Your task to perform on an android device: open app "Facebook Lite" (install if not already installed) Image 0: 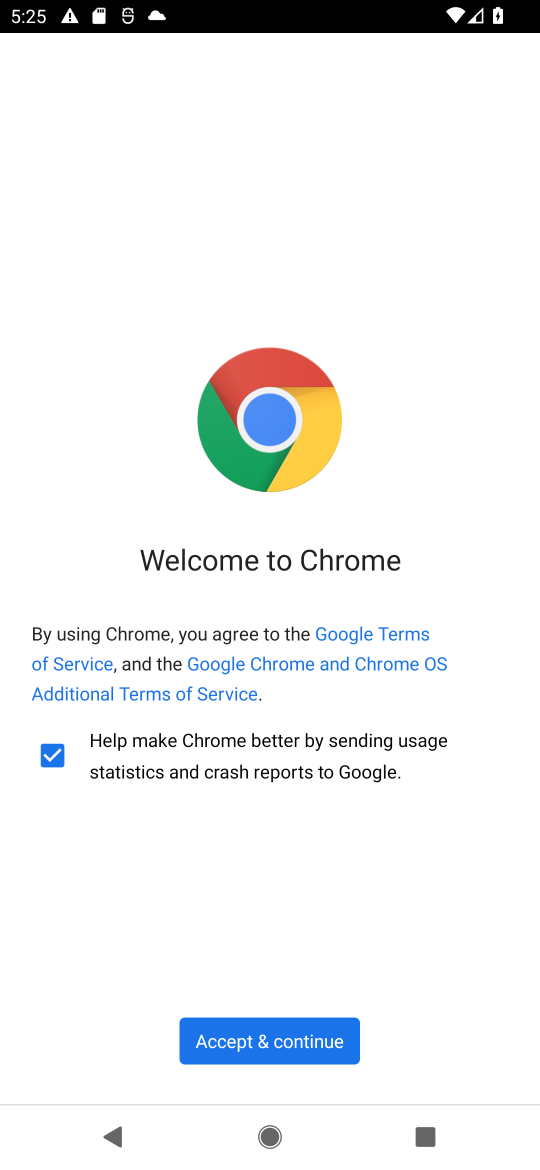
Step 0: press home button
Your task to perform on an android device: open app "Facebook Lite" (install if not already installed) Image 1: 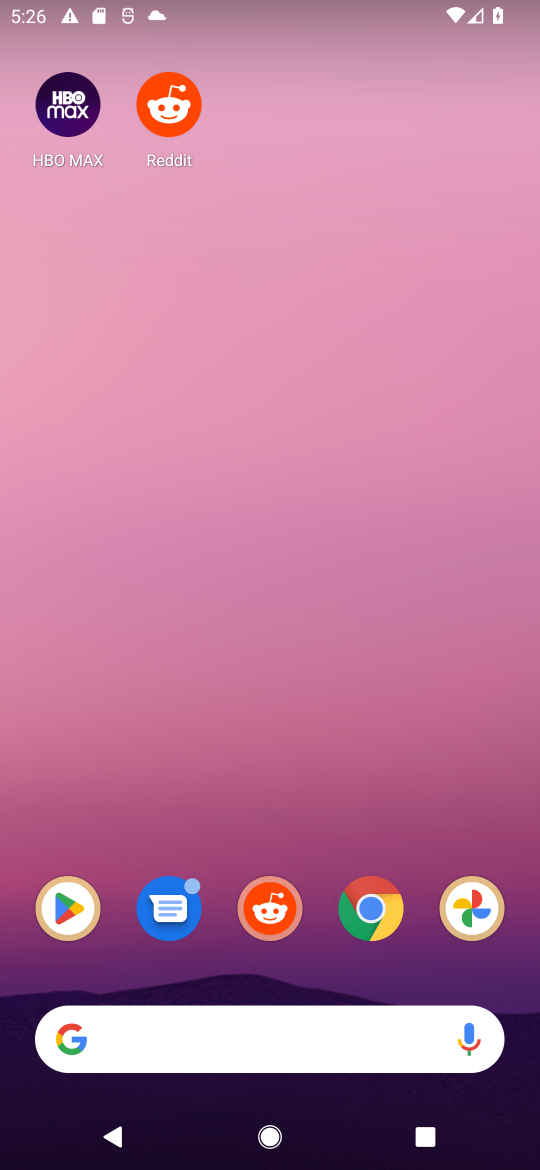
Step 1: click (58, 905)
Your task to perform on an android device: open app "Facebook Lite" (install if not already installed) Image 2: 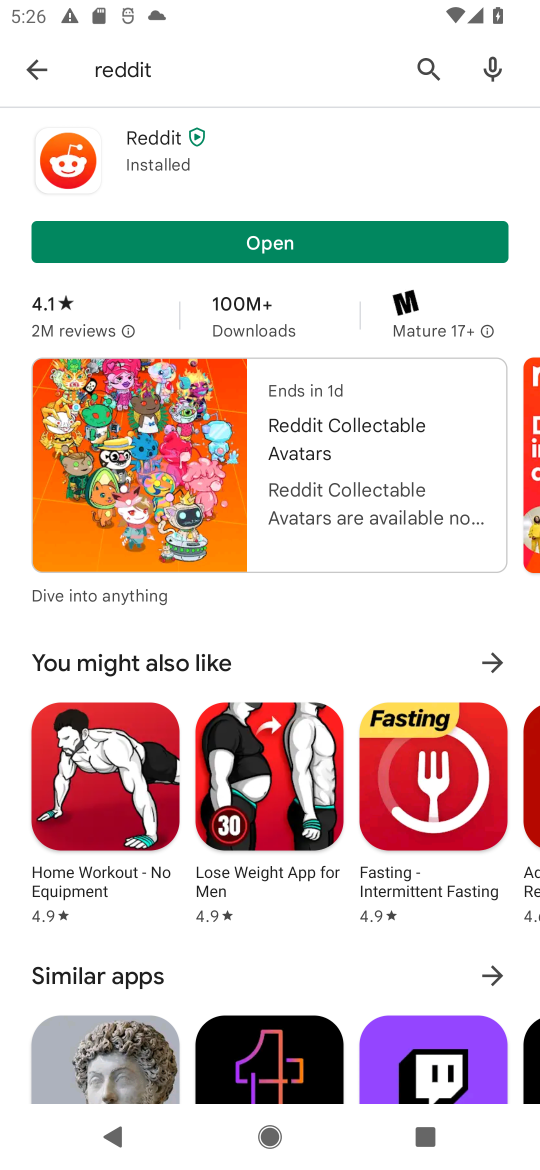
Step 2: click (418, 60)
Your task to perform on an android device: open app "Facebook Lite" (install if not already installed) Image 3: 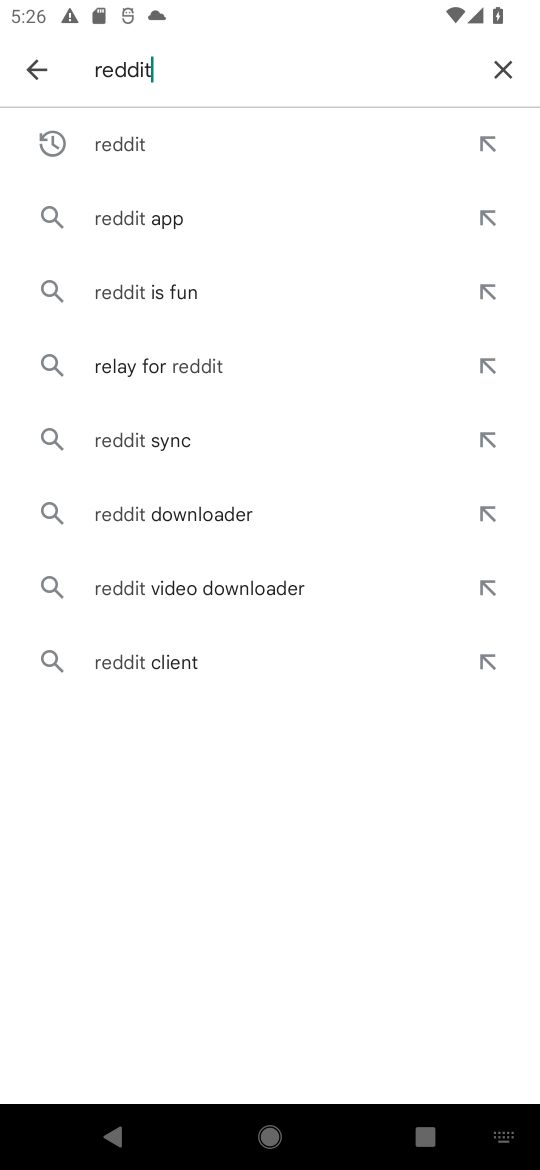
Step 3: click (498, 61)
Your task to perform on an android device: open app "Facebook Lite" (install if not already installed) Image 4: 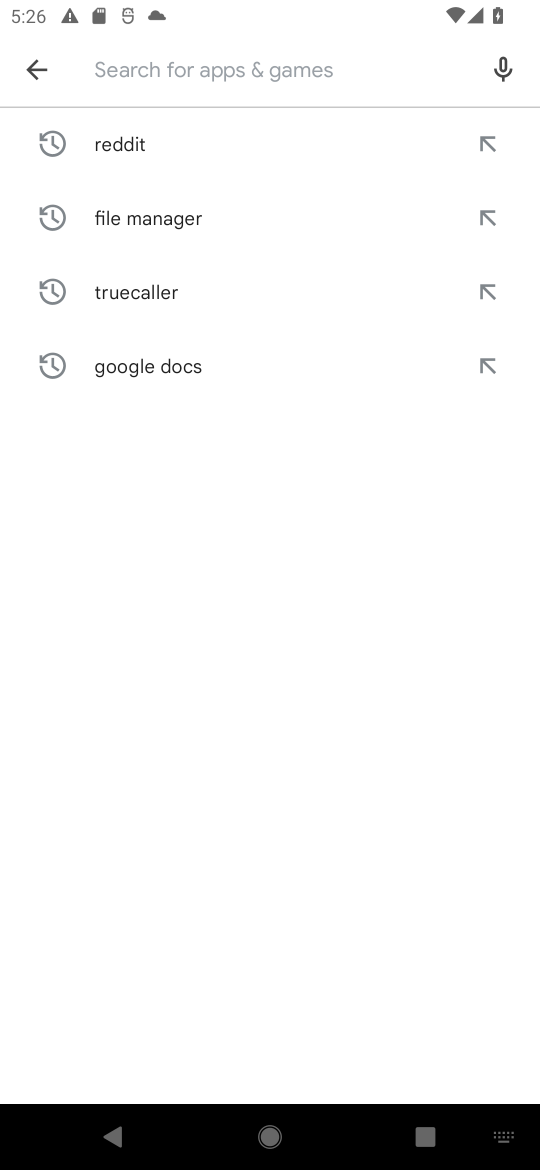
Step 4: click (135, 80)
Your task to perform on an android device: open app "Facebook Lite" (install if not already installed) Image 5: 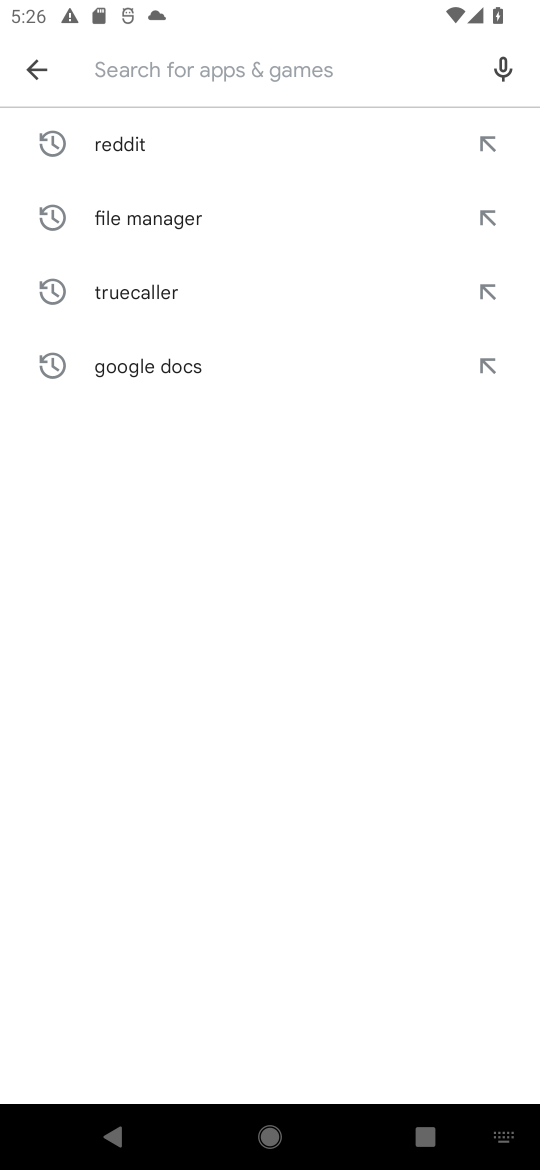
Step 5: type "Facebook Lite"
Your task to perform on an android device: open app "Facebook Lite" (install if not already installed) Image 6: 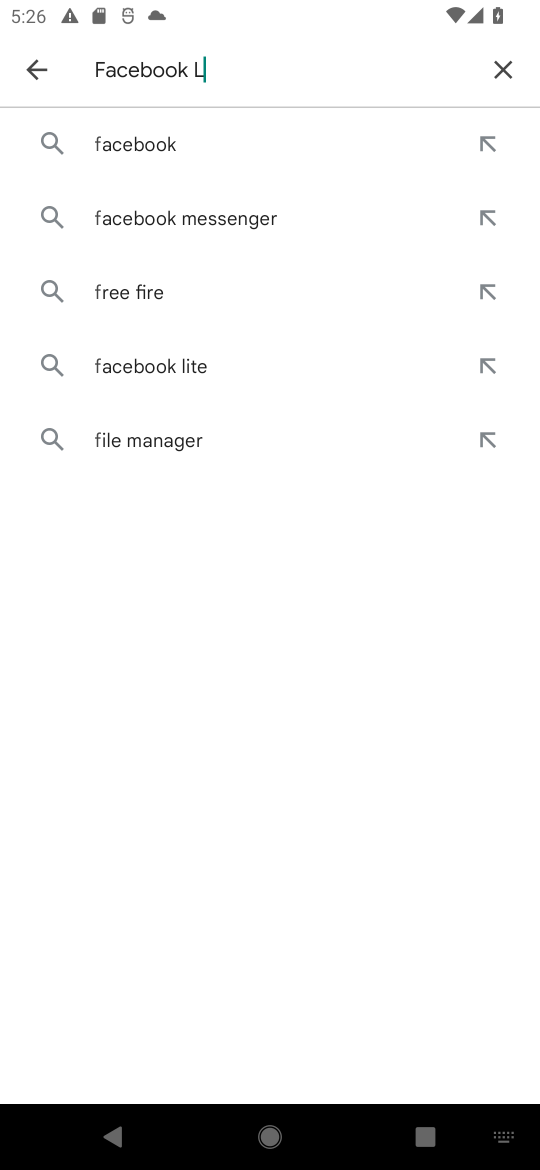
Step 6: type ""
Your task to perform on an android device: open app "Facebook Lite" (install if not already installed) Image 7: 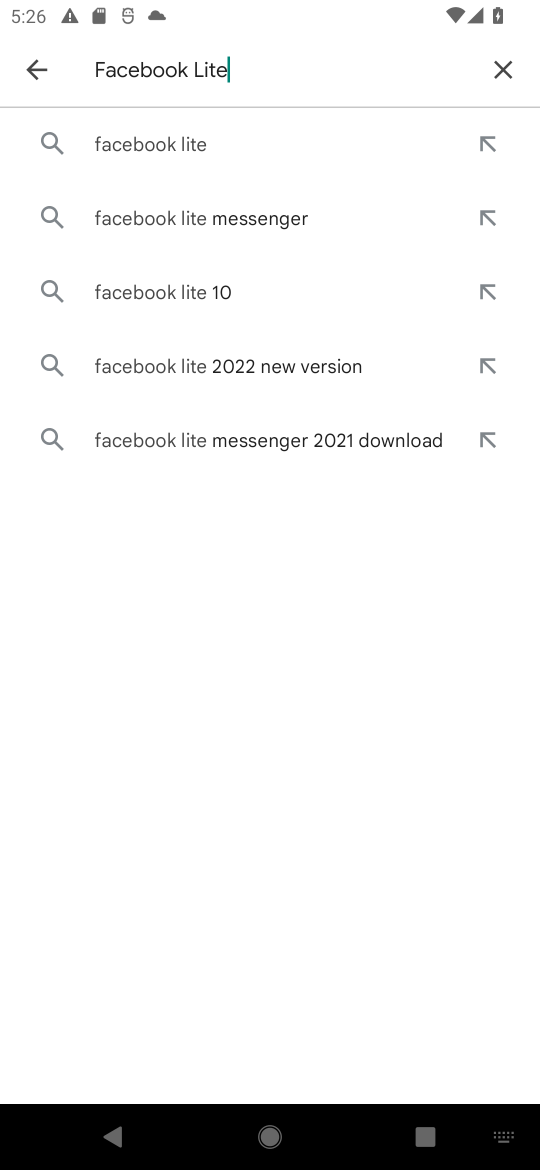
Step 7: click (233, 128)
Your task to perform on an android device: open app "Facebook Lite" (install if not already installed) Image 8: 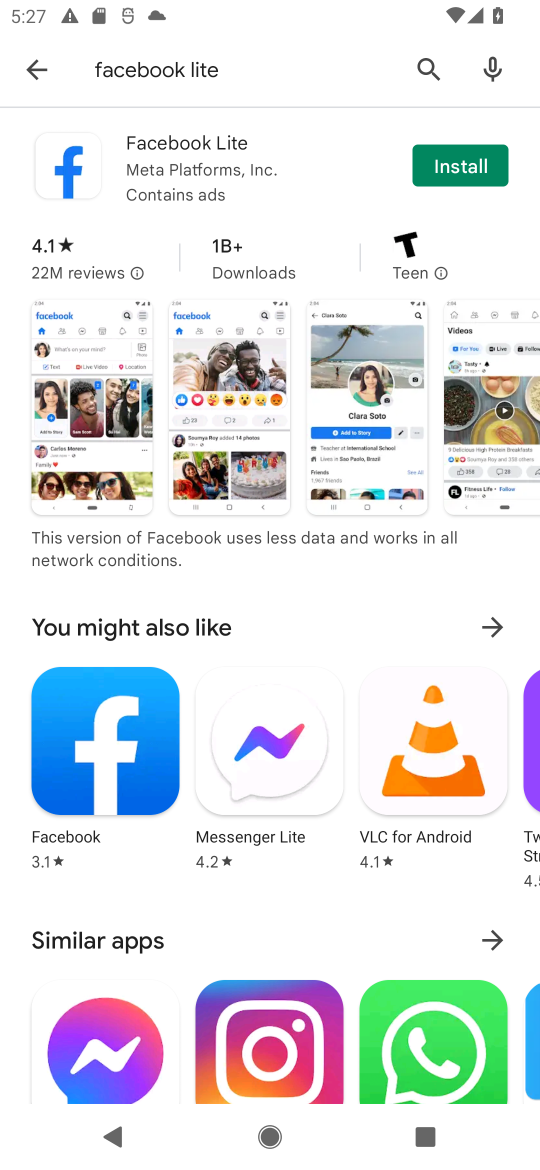
Step 8: click (475, 165)
Your task to perform on an android device: open app "Facebook Lite" (install if not already installed) Image 9: 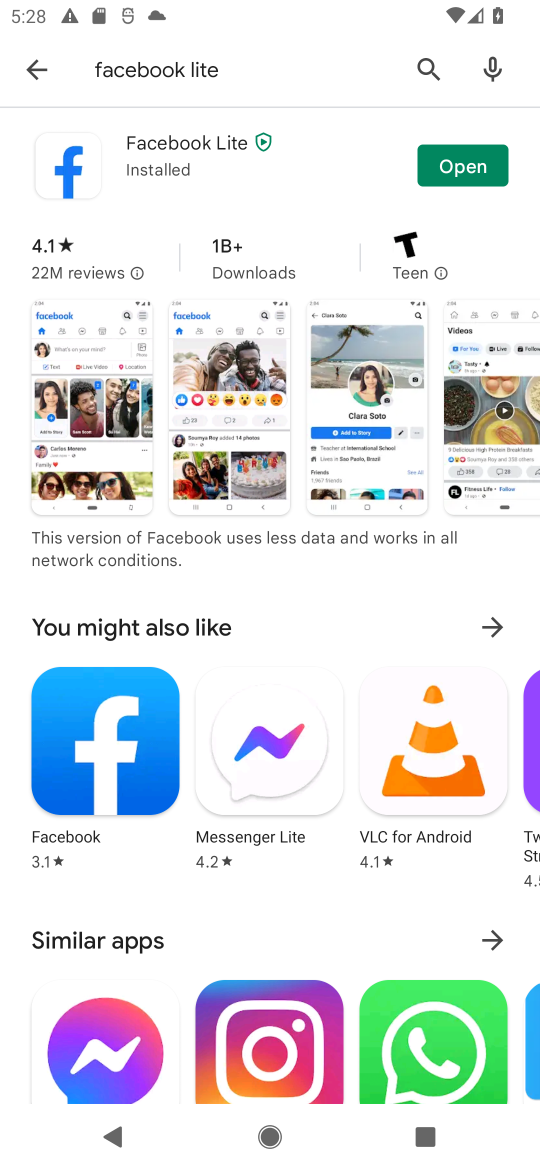
Step 9: click (483, 155)
Your task to perform on an android device: open app "Facebook Lite" (install if not already installed) Image 10: 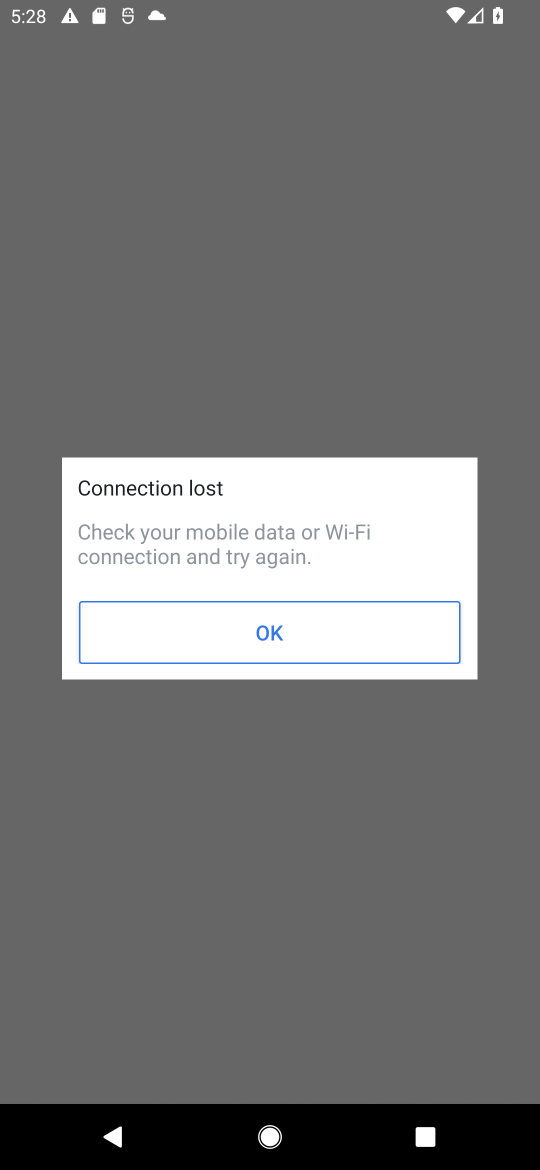
Step 10: task complete